Your task to perform on an android device: turn off airplane mode Image 0: 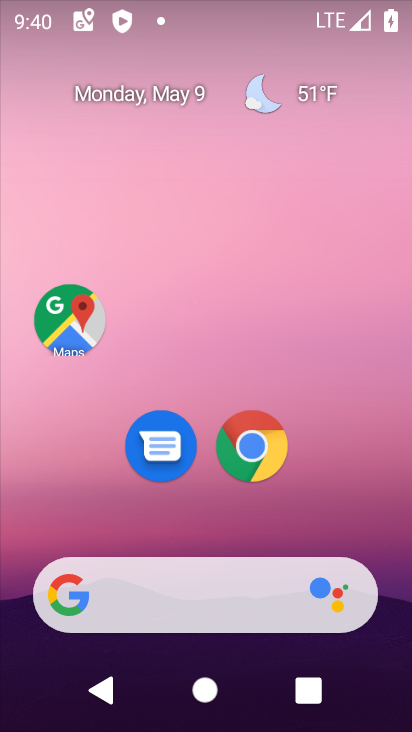
Step 0: drag from (310, 453) to (309, 7)
Your task to perform on an android device: turn off airplane mode Image 1: 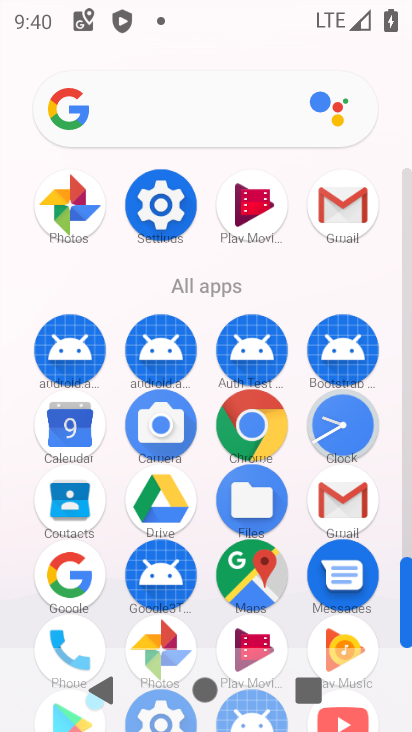
Step 1: click (156, 208)
Your task to perform on an android device: turn off airplane mode Image 2: 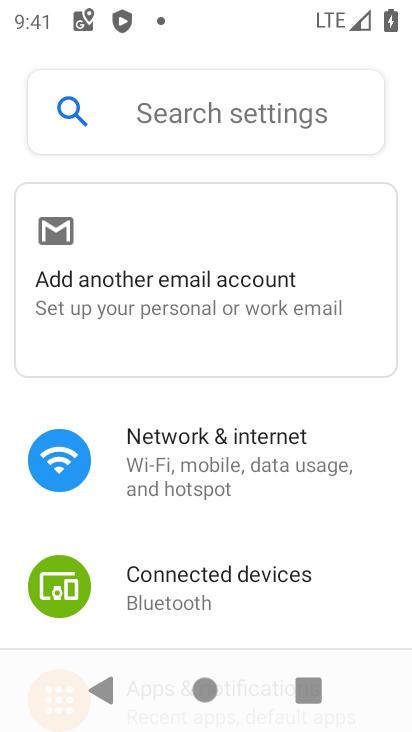
Step 2: click (226, 470)
Your task to perform on an android device: turn off airplane mode Image 3: 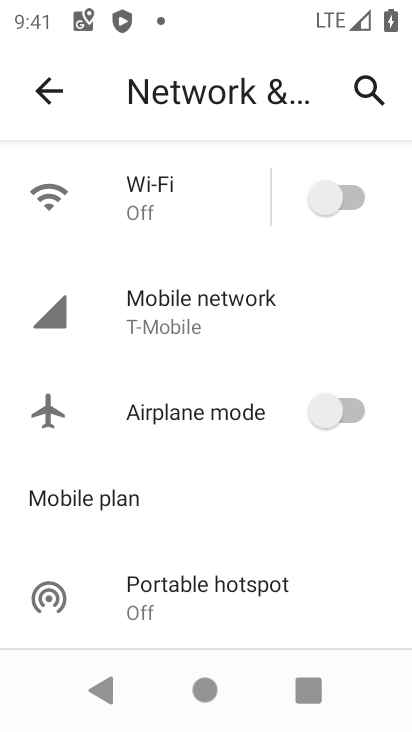
Step 3: task complete